Your task to perform on an android device: Open Google Image 0: 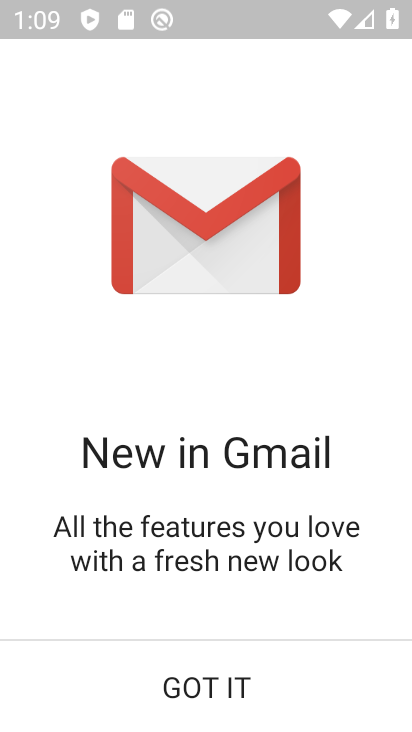
Step 0: press home button
Your task to perform on an android device: Open Google Image 1: 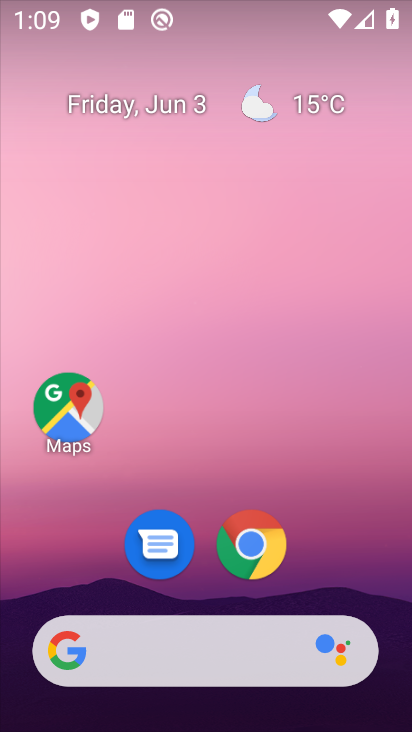
Step 1: drag from (196, 591) to (395, 584)
Your task to perform on an android device: Open Google Image 2: 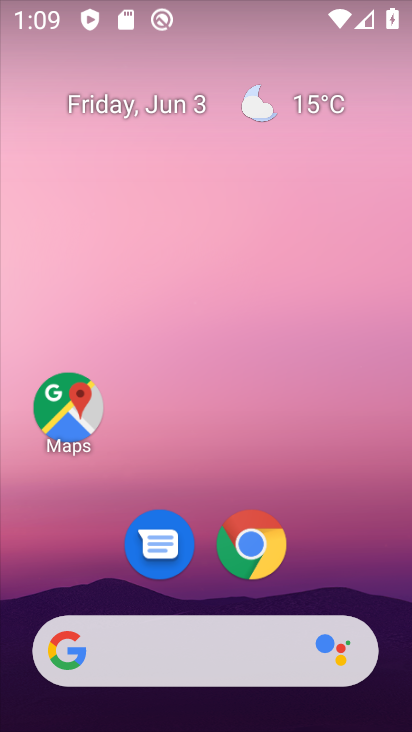
Step 2: drag from (211, 622) to (199, 16)
Your task to perform on an android device: Open Google Image 3: 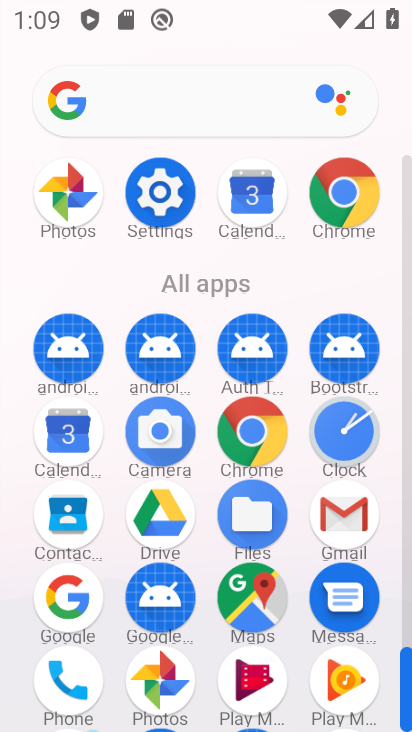
Step 3: click (60, 590)
Your task to perform on an android device: Open Google Image 4: 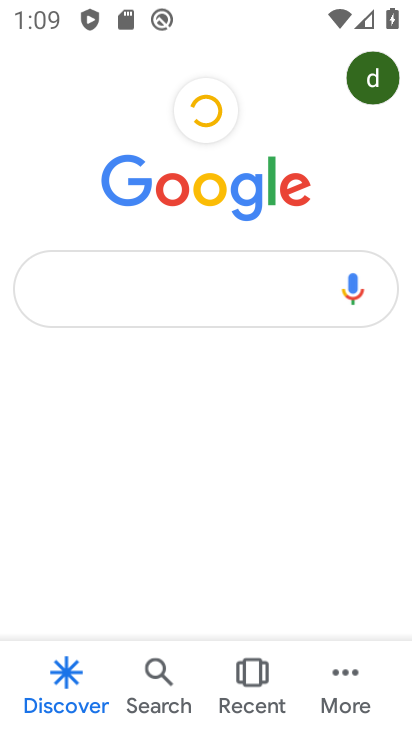
Step 4: task complete